Your task to perform on an android device: Go to Amazon Image 0: 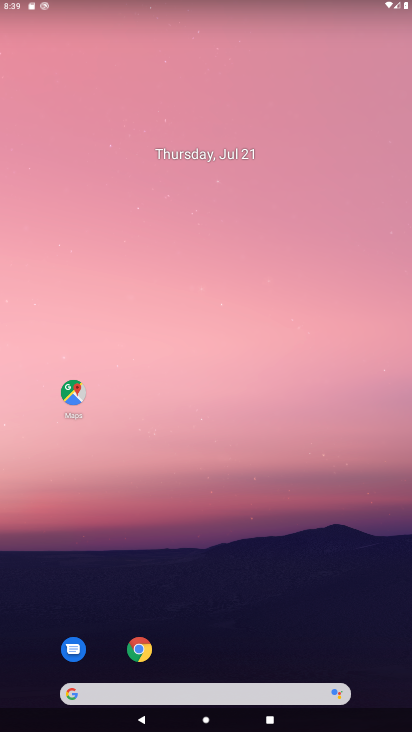
Step 0: click (138, 647)
Your task to perform on an android device: Go to Amazon Image 1: 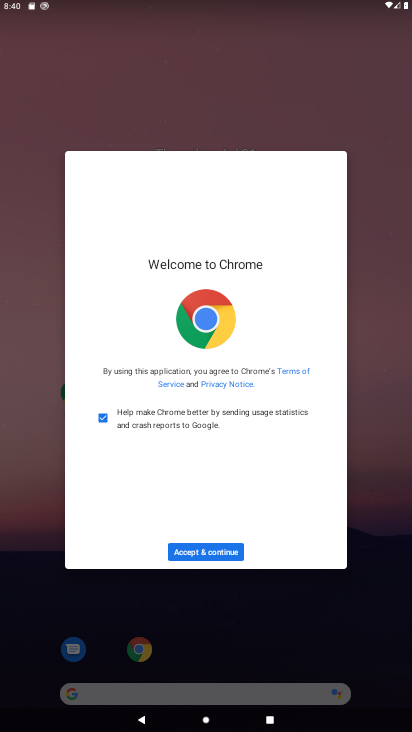
Step 1: click (193, 549)
Your task to perform on an android device: Go to Amazon Image 2: 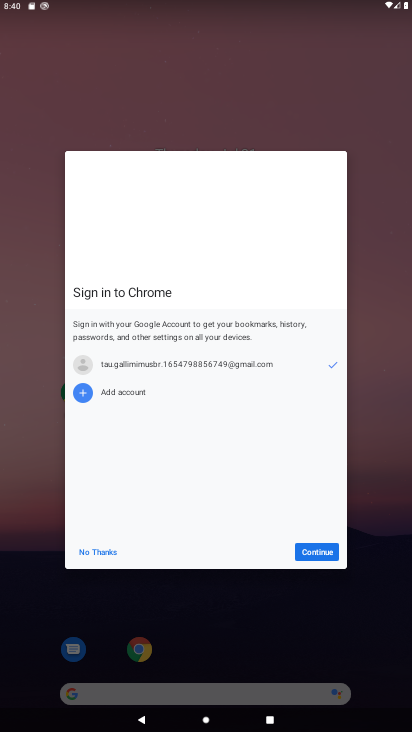
Step 2: click (312, 550)
Your task to perform on an android device: Go to Amazon Image 3: 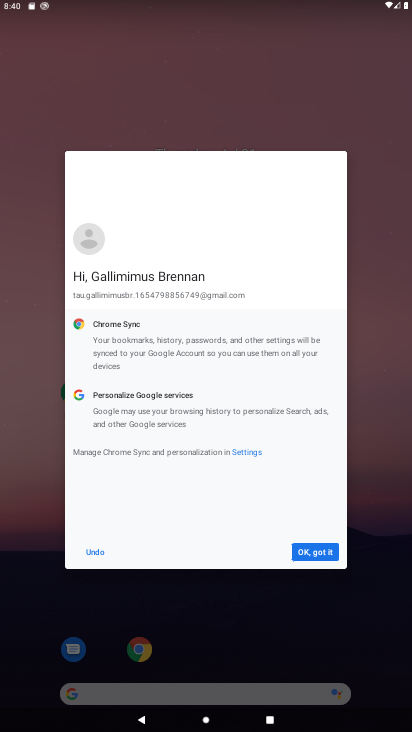
Step 3: click (311, 550)
Your task to perform on an android device: Go to Amazon Image 4: 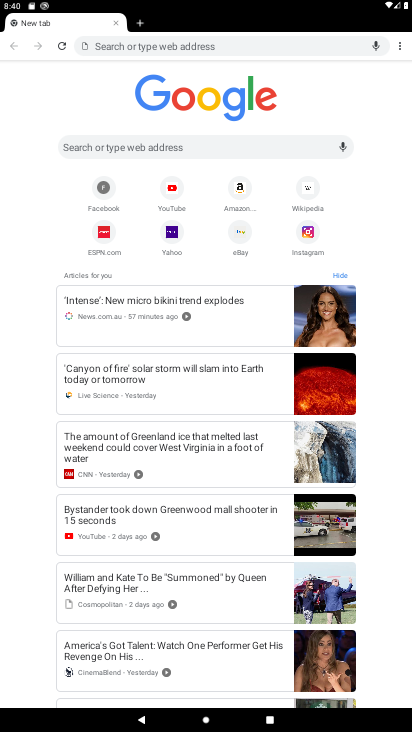
Step 4: click (238, 190)
Your task to perform on an android device: Go to Amazon Image 5: 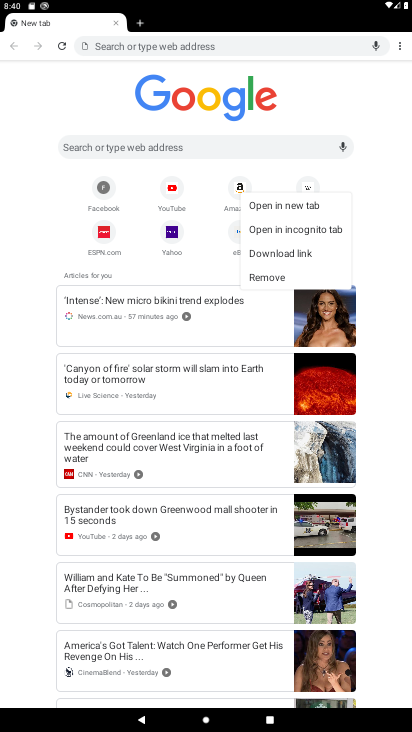
Step 5: click (238, 184)
Your task to perform on an android device: Go to Amazon Image 6: 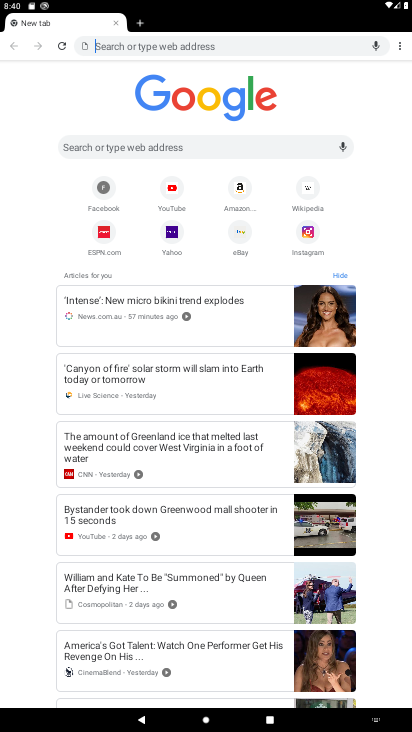
Step 6: click (241, 188)
Your task to perform on an android device: Go to Amazon Image 7: 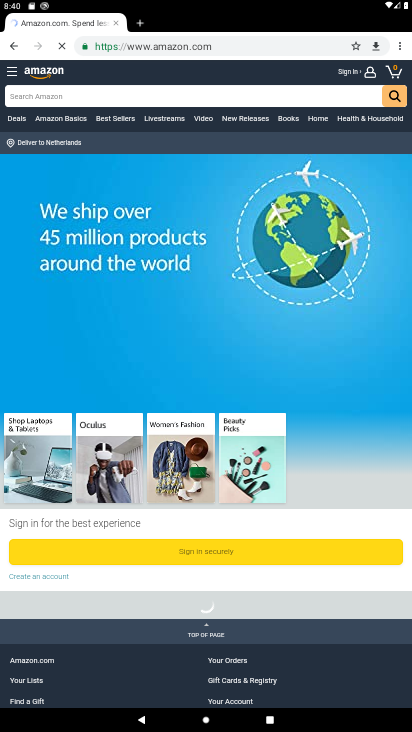
Step 7: task complete